Your task to perform on an android device: open a new tab in the chrome app Image 0: 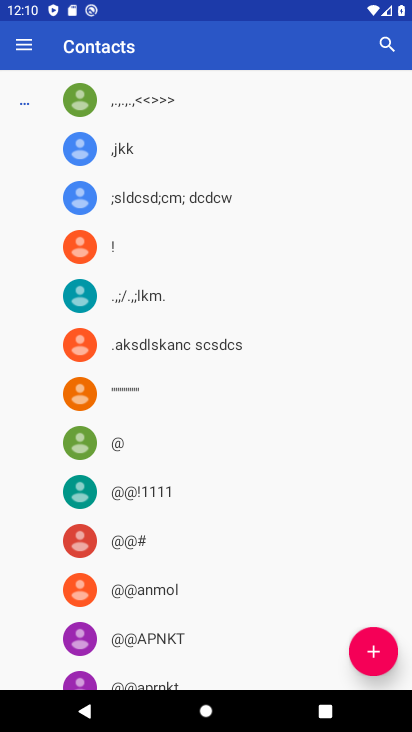
Step 0: press home button
Your task to perform on an android device: open a new tab in the chrome app Image 1: 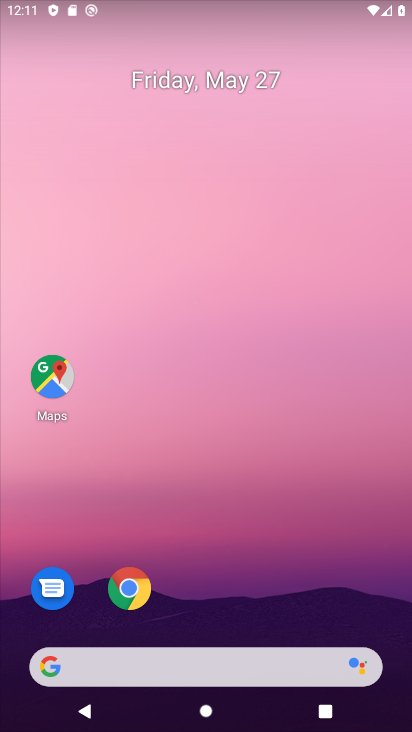
Step 1: click (127, 578)
Your task to perform on an android device: open a new tab in the chrome app Image 2: 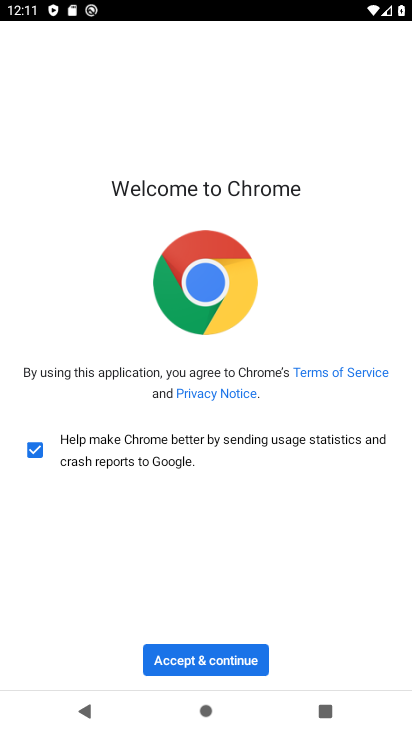
Step 2: click (209, 651)
Your task to perform on an android device: open a new tab in the chrome app Image 3: 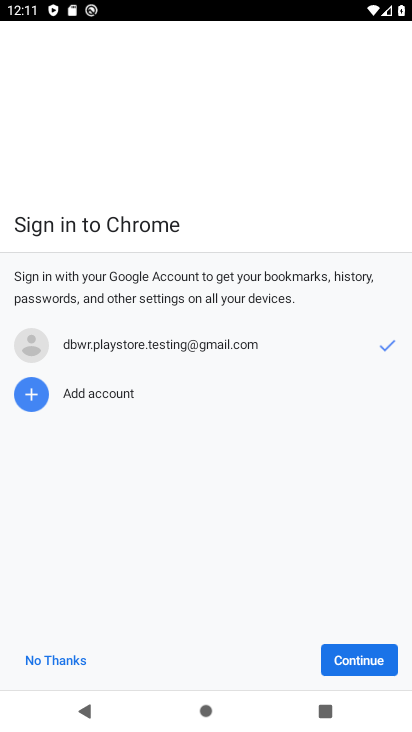
Step 3: click (346, 659)
Your task to perform on an android device: open a new tab in the chrome app Image 4: 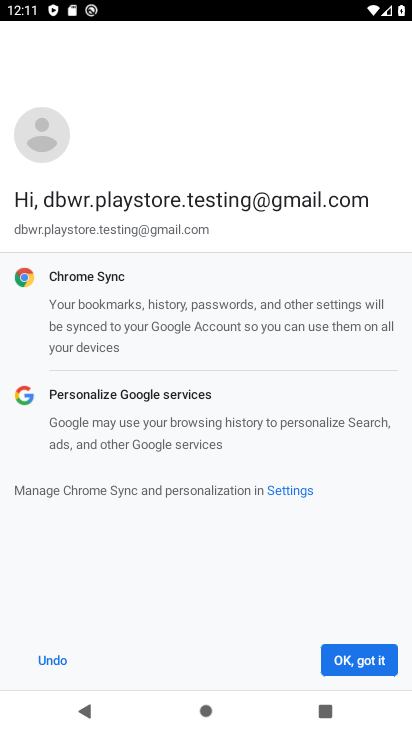
Step 4: click (352, 658)
Your task to perform on an android device: open a new tab in the chrome app Image 5: 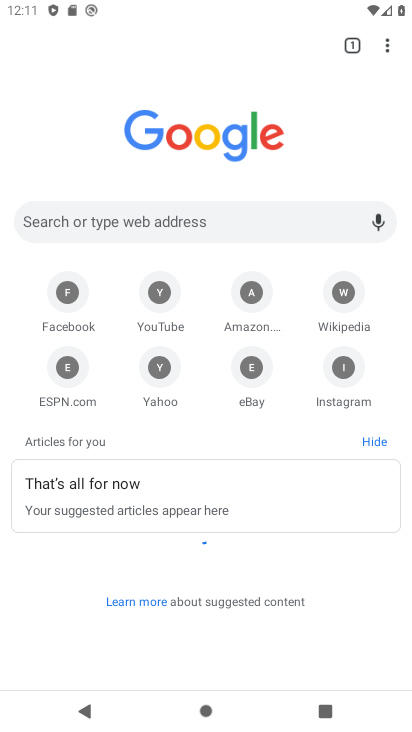
Step 5: click (344, 45)
Your task to perform on an android device: open a new tab in the chrome app Image 6: 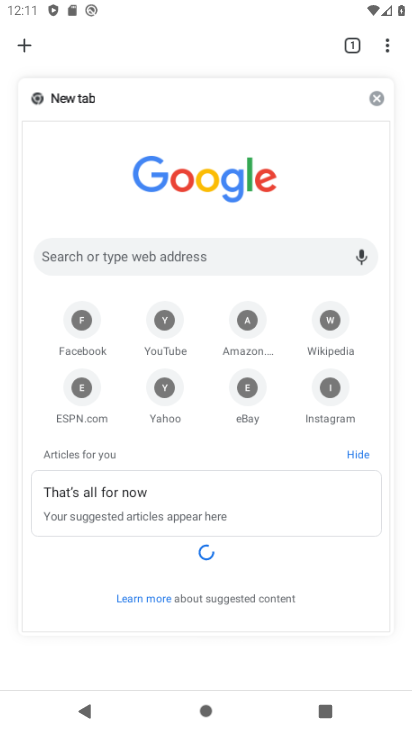
Step 6: click (26, 40)
Your task to perform on an android device: open a new tab in the chrome app Image 7: 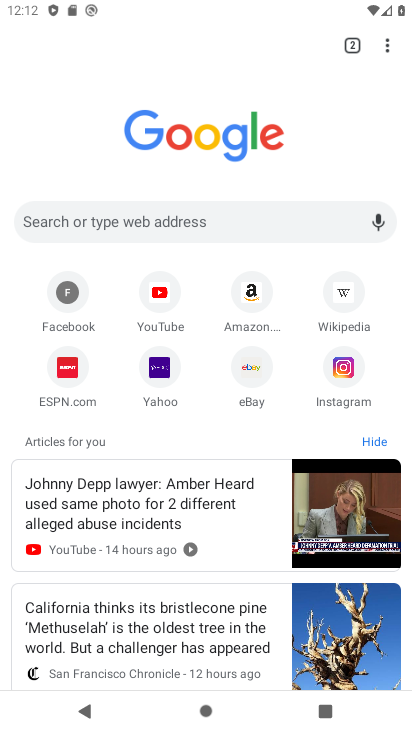
Step 7: task complete